Your task to perform on an android device: Open Google Chrome and click the shortcut for Amazon.com Image 0: 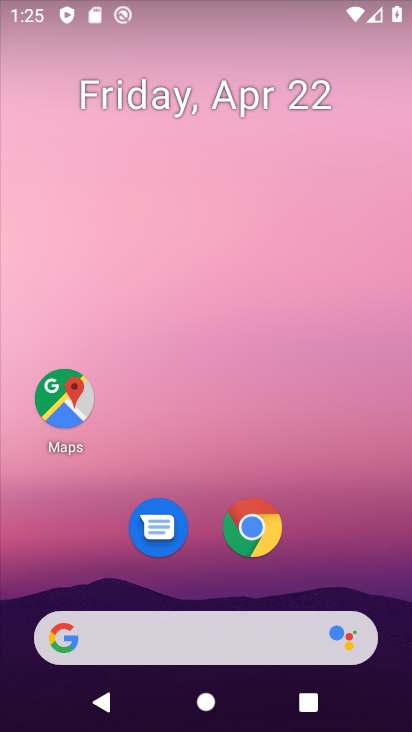
Step 0: drag from (383, 533) to (306, 57)
Your task to perform on an android device: Open Google Chrome and click the shortcut for Amazon.com Image 1: 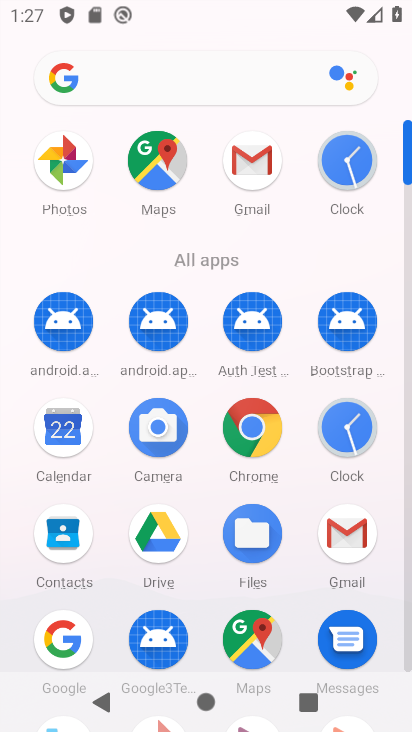
Step 1: click (256, 441)
Your task to perform on an android device: Open Google Chrome and click the shortcut for Amazon.com Image 2: 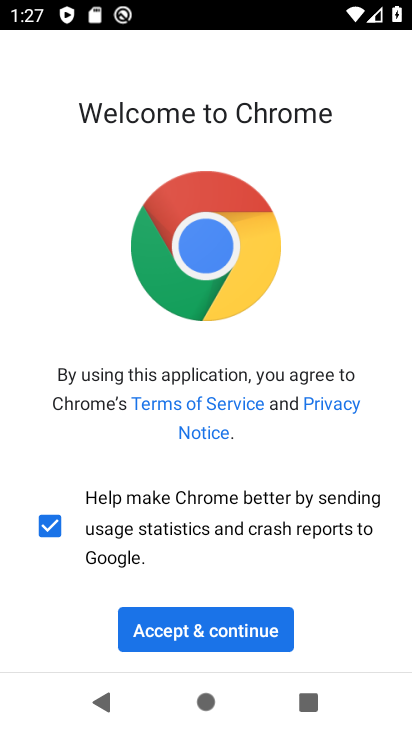
Step 2: click (217, 639)
Your task to perform on an android device: Open Google Chrome and click the shortcut for Amazon.com Image 3: 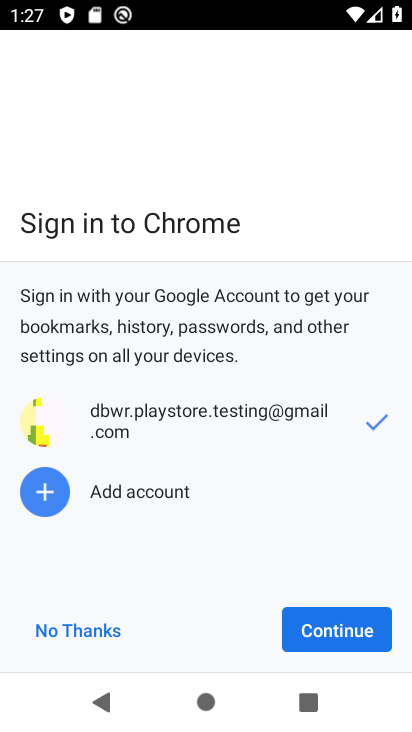
Step 3: click (314, 626)
Your task to perform on an android device: Open Google Chrome and click the shortcut for Amazon.com Image 4: 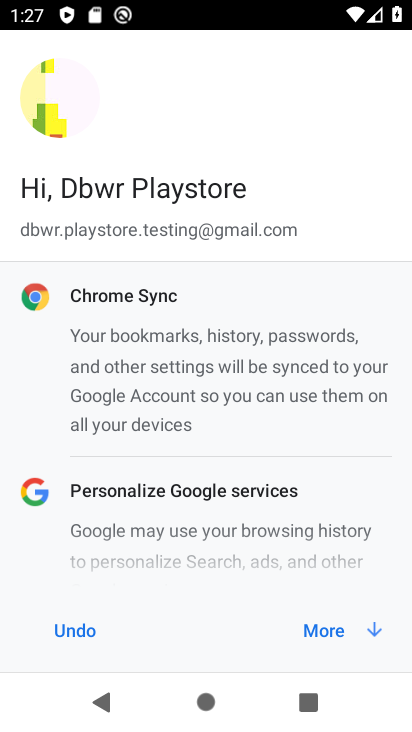
Step 4: click (314, 626)
Your task to perform on an android device: Open Google Chrome and click the shortcut for Amazon.com Image 5: 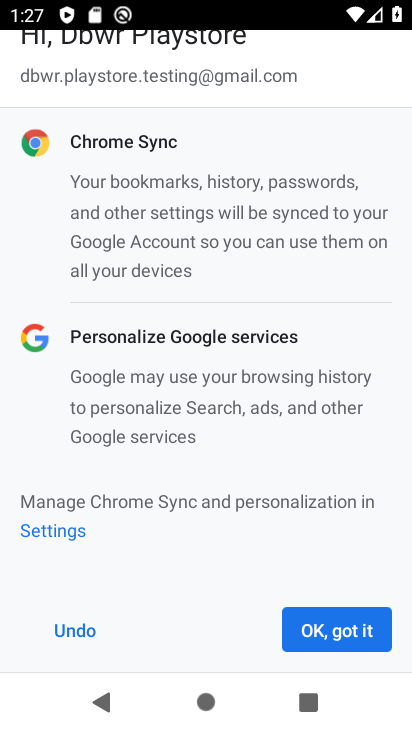
Step 5: click (314, 626)
Your task to perform on an android device: Open Google Chrome and click the shortcut for Amazon.com Image 6: 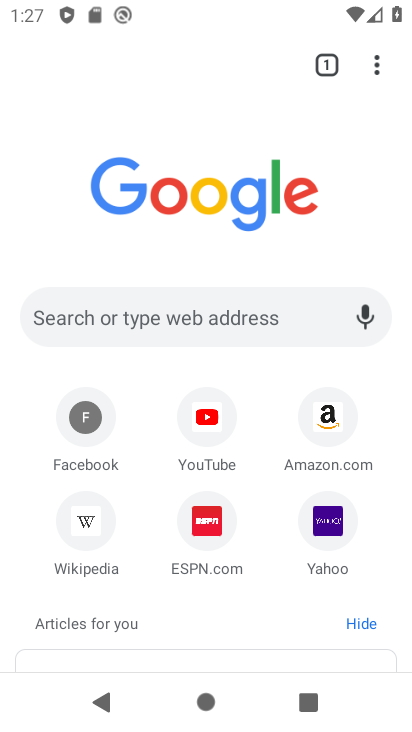
Step 6: click (316, 415)
Your task to perform on an android device: Open Google Chrome and click the shortcut for Amazon.com Image 7: 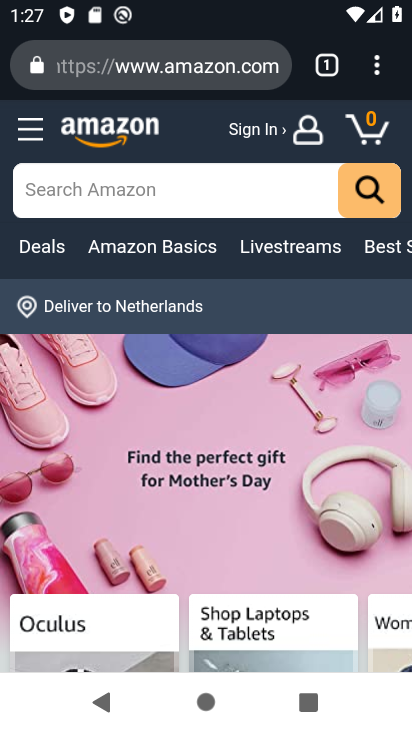
Step 7: task complete